Your task to perform on an android device: Open Google Image 0: 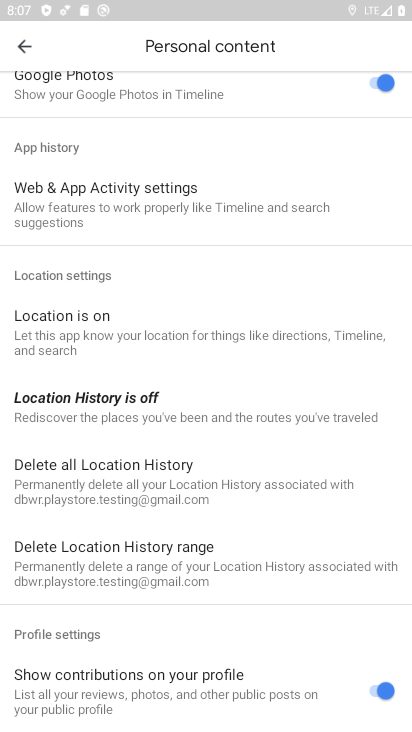
Step 0: press home button
Your task to perform on an android device: Open Google Image 1: 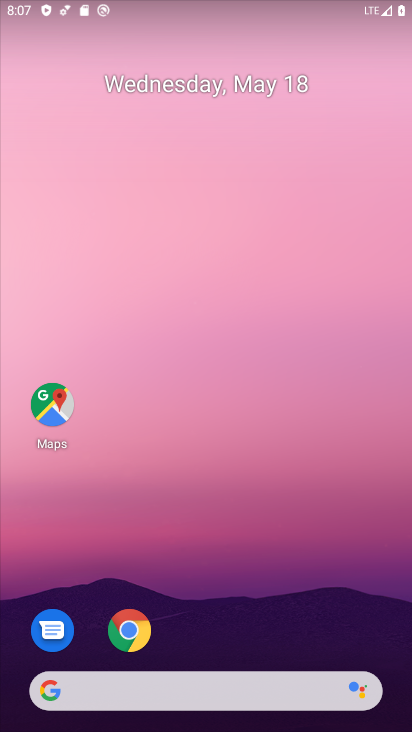
Step 1: drag from (150, 679) to (203, 99)
Your task to perform on an android device: Open Google Image 2: 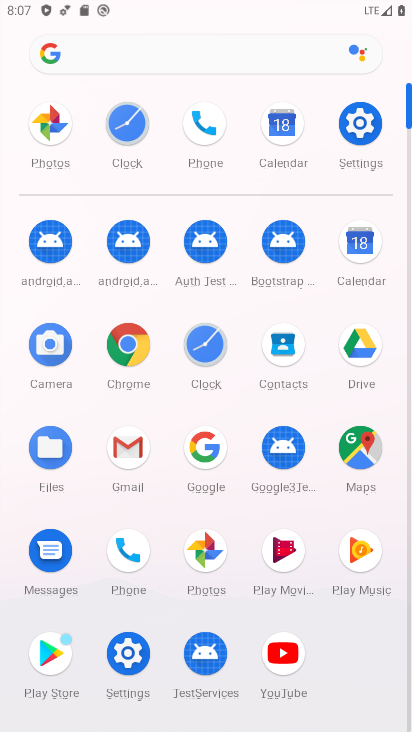
Step 2: click (212, 454)
Your task to perform on an android device: Open Google Image 3: 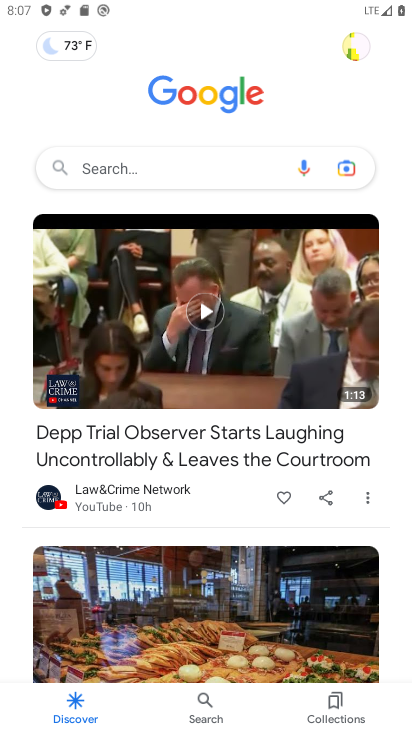
Step 3: task complete